Your task to perform on an android device: Search for a cheap bike on Walmart Image 0: 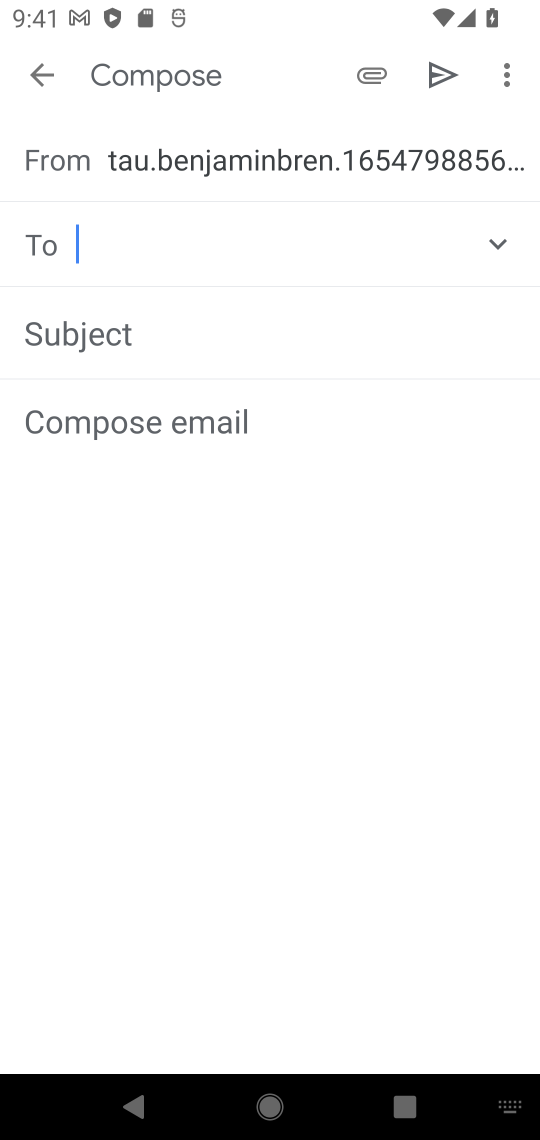
Step 0: press home button
Your task to perform on an android device: Search for a cheap bike on Walmart Image 1: 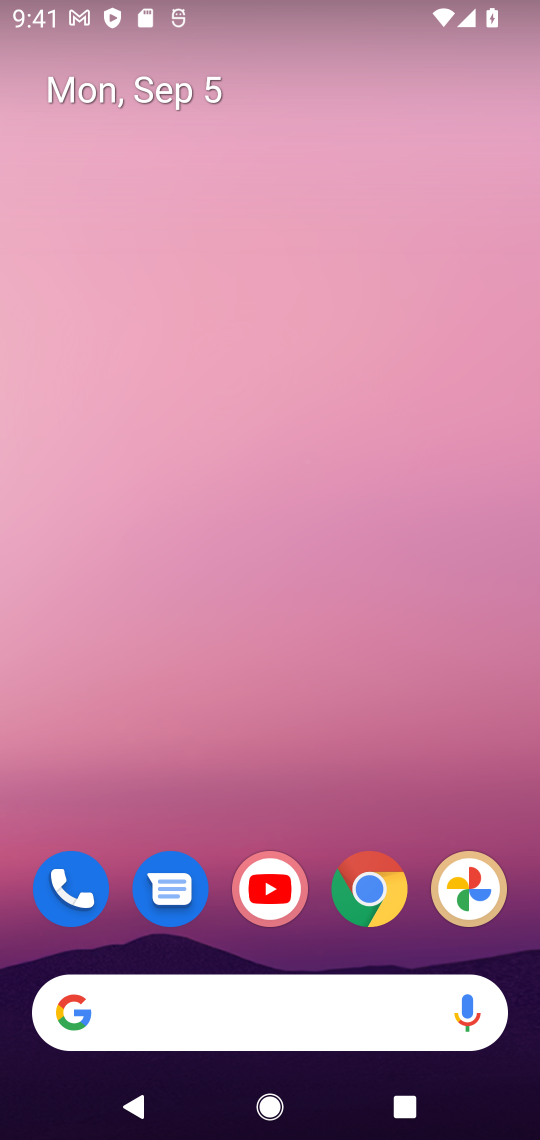
Step 1: click (256, 1011)
Your task to perform on an android device: Search for a cheap bike on Walmart Image 2: 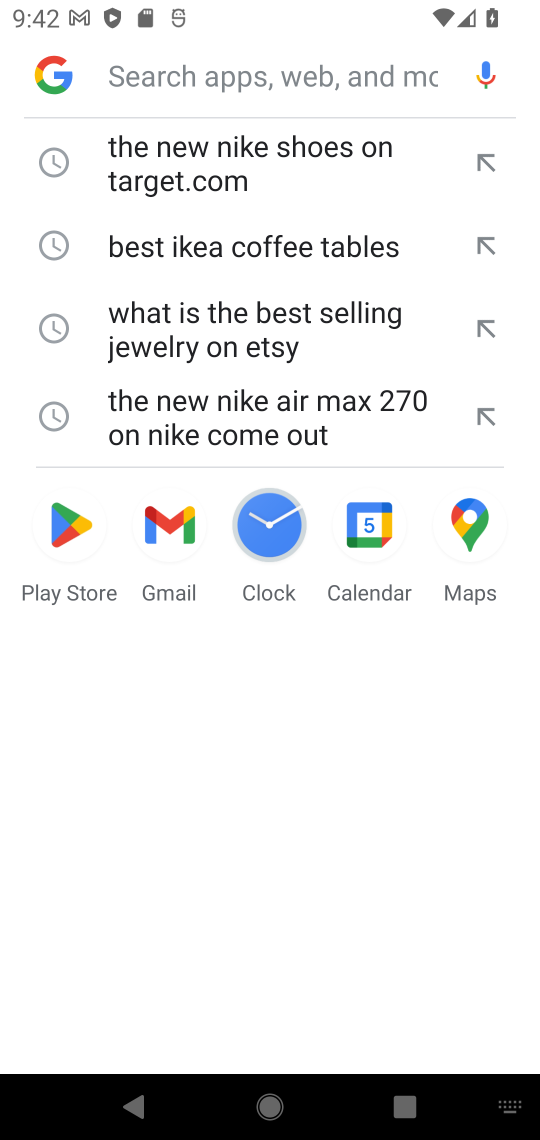
Step 2: type "Search for a cheap bike on Walmart"
Your task to perform on an android device: Search for a cheap bike on Walmart Image 3: 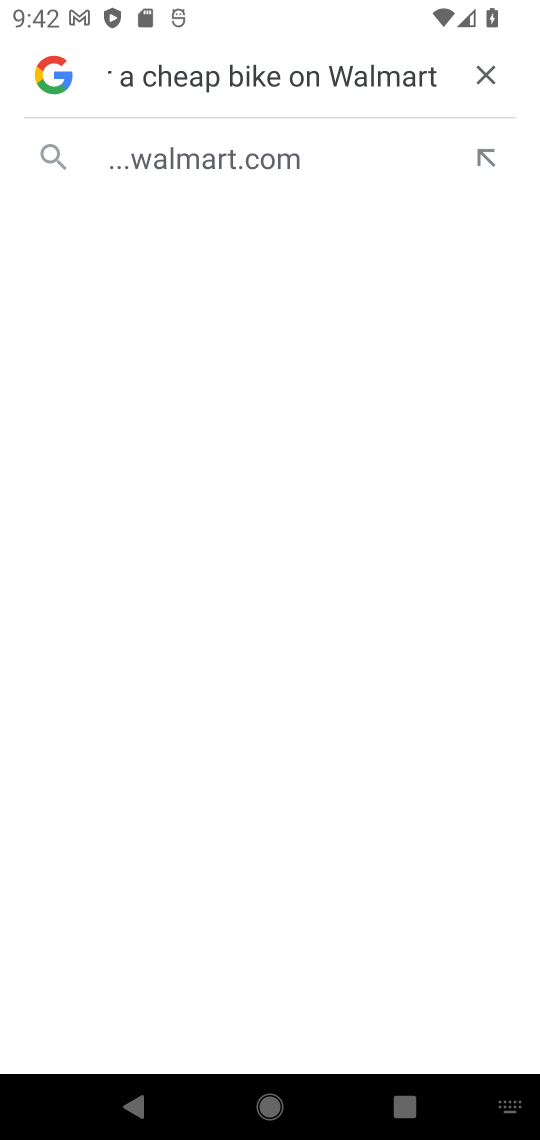
Step 3: click (154, 166)
Your task to perform on an android device: Search for a cheap bike on Walmart Image 4: 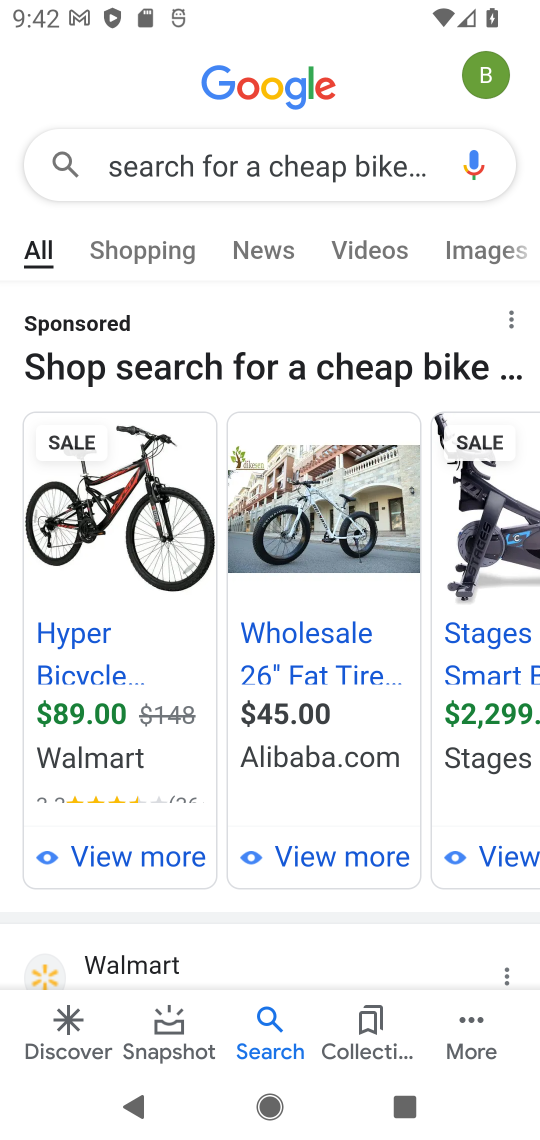
Step 4: task complete